Your task to perform on an android device: Go to Wikipedia Image 0: 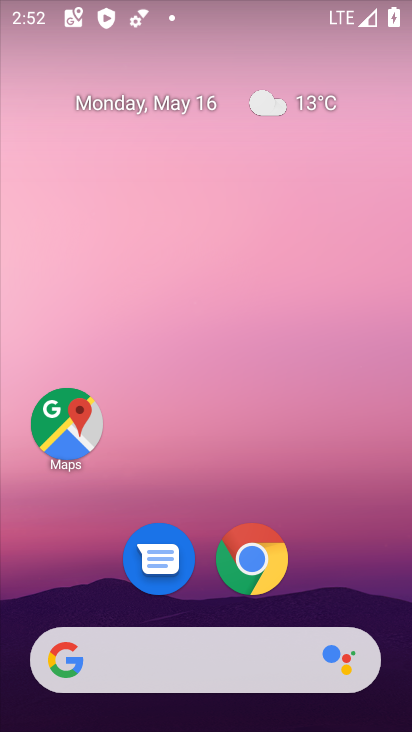
Step 0: click (265, 564)
Your task to perform on an android device: Go to Wikipedia Image 1: 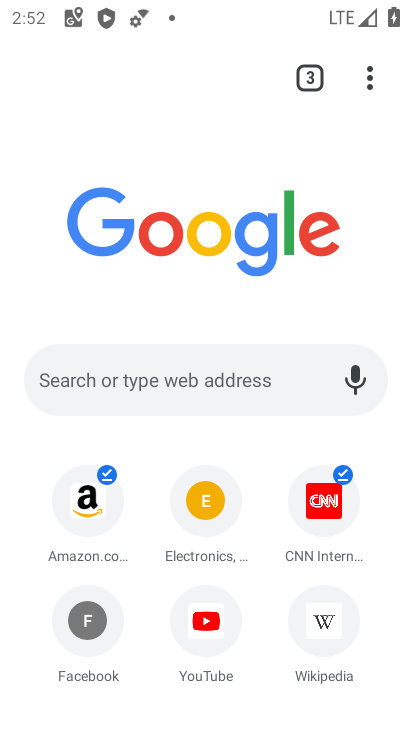
Step 1: click (349, 639)
Your task to perform on an android device: Go to Wikipedia Image 2: 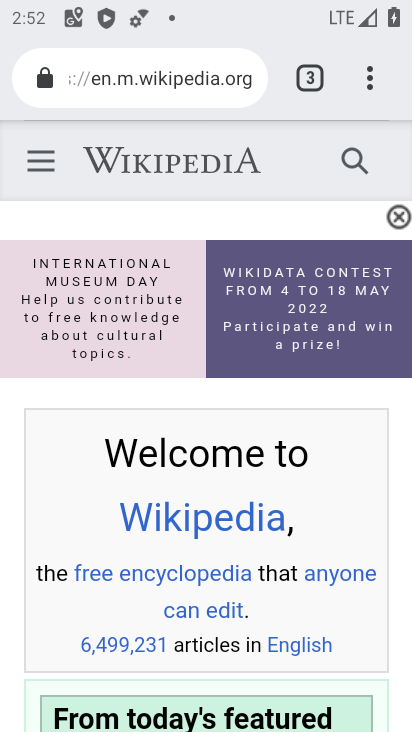
Step 2: task complete